Your task to perform on an android device: turn off improve location accuracy Image 0: 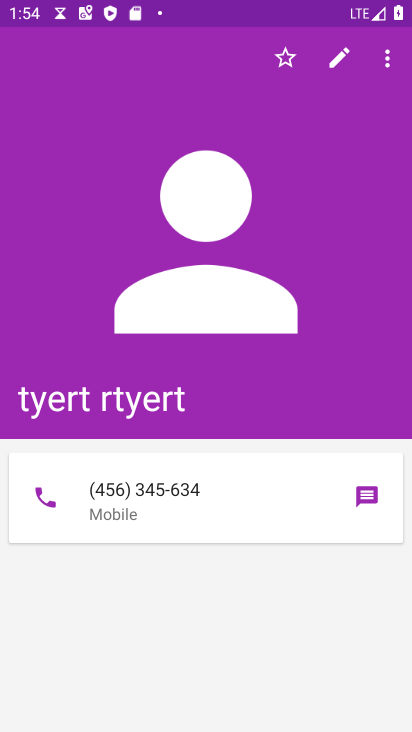
Step 0: press home button
Your task to perform on an android device: turn off improve location accuracy Image 1: 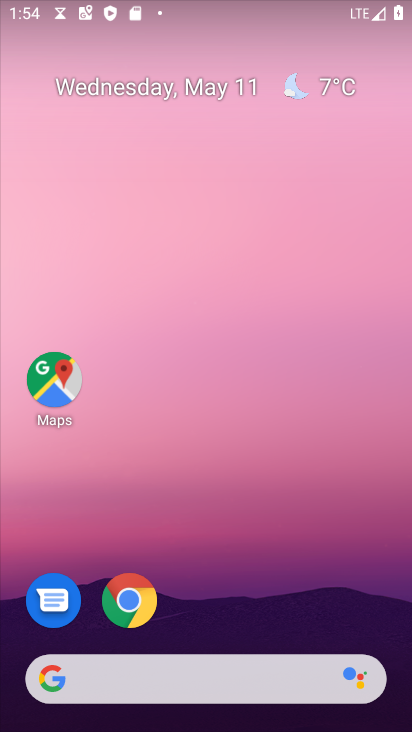
Step 1: drag from (244, 571) to (165, 52)
Your task to perform on an android device: turn off improve location accuracy Image 2: 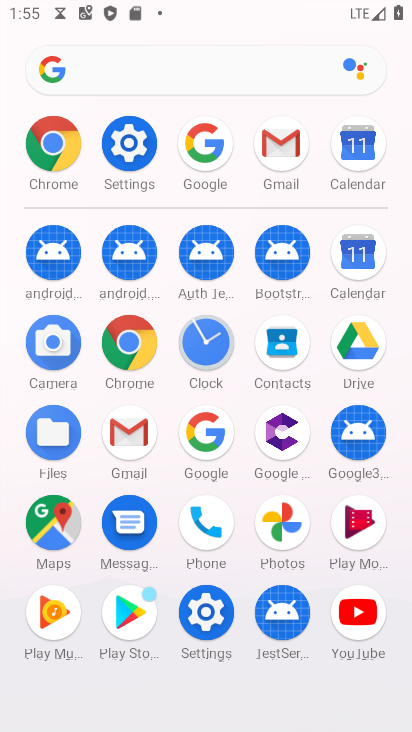
Step 2: click (129, 164)
Your task to perform on an android device: turn off improve location accuracy Image 3: 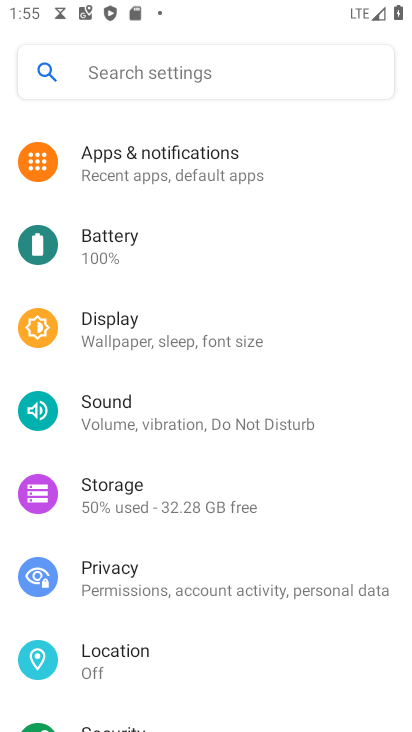
Step 3: drag from (187, 570) to (196, 154)
Your task to perform on an android device: turn off improve location accuracy Image 4: 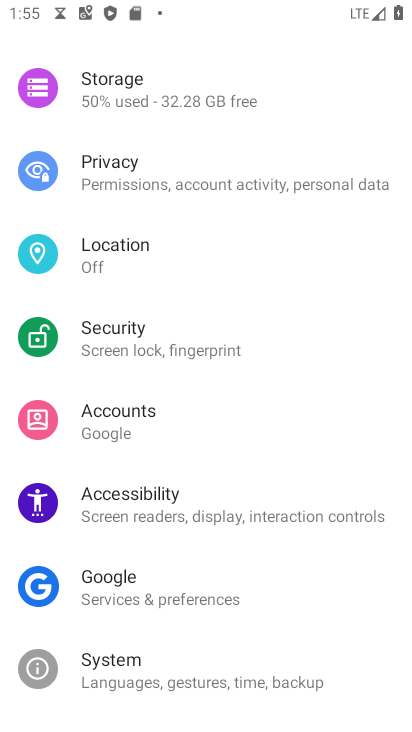
Step 4: click (151, 269)
Your task to perform on an android device: turn off improve location accuracy Image 5: 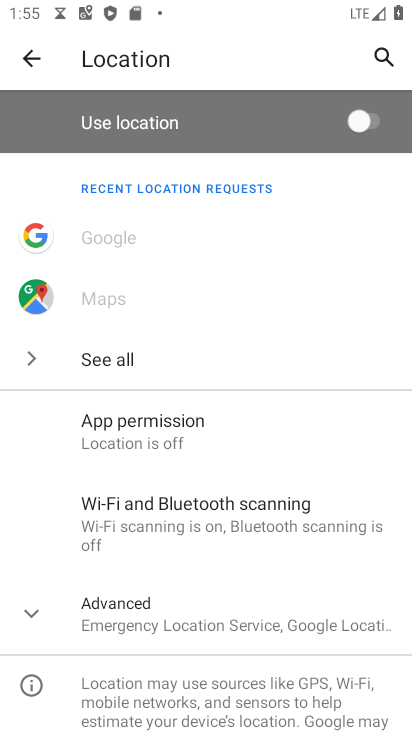
Step 5: click (190, 619)
Your task to perform on an android device: turn off improve location accuracy Image 6: 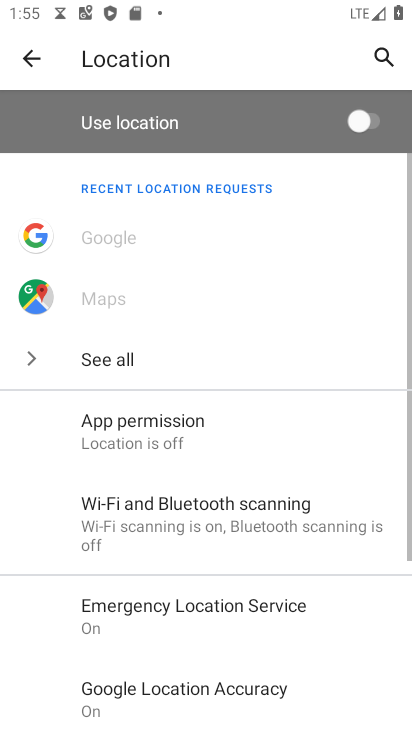
Step 6: drag from (182, 656) to (180, 172)
Your task to perform on an android device: turn off improve location accuracy Image 7: 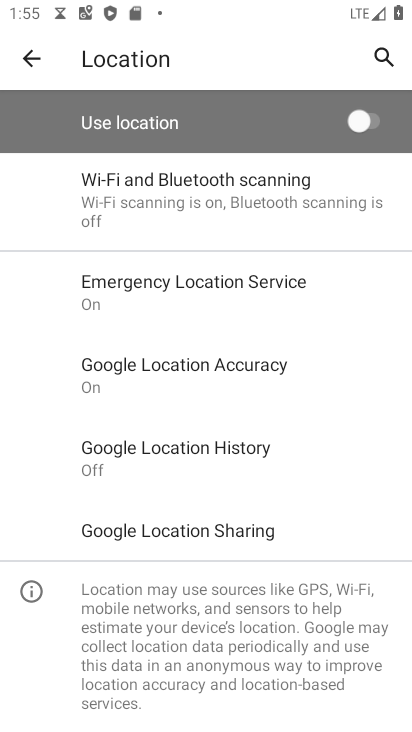
Step 7: click (208, 372)
Your task to perform on an android device: turn off improve location accuracy Image 8: 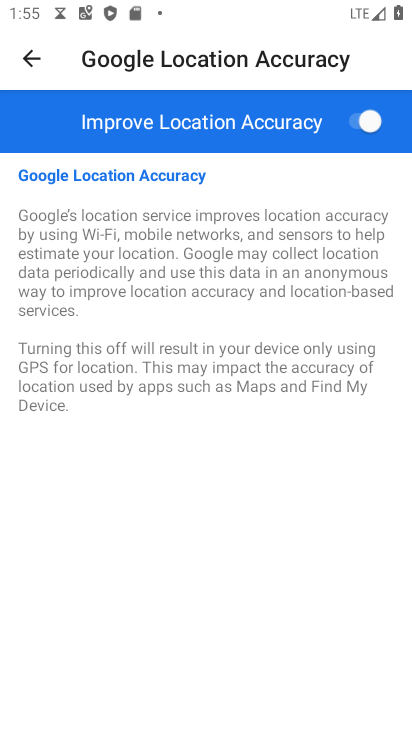
Step 8: click (359, 116)
Your task to perform on an android device: turn off improve location accuracy Image 9: 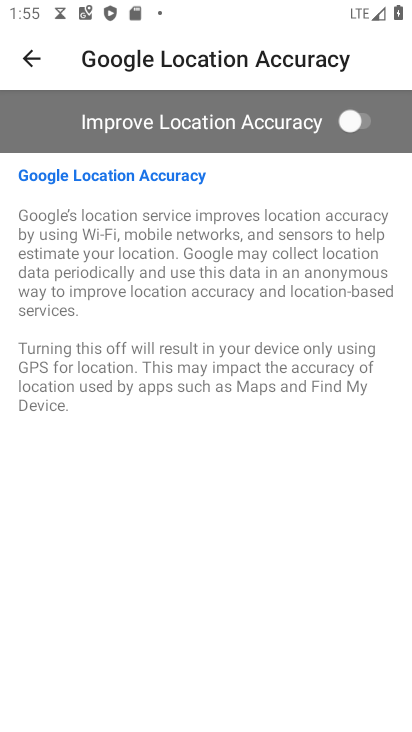
Step 9: task complete